Your task to perform on an android device: Open sound settings Image 0: 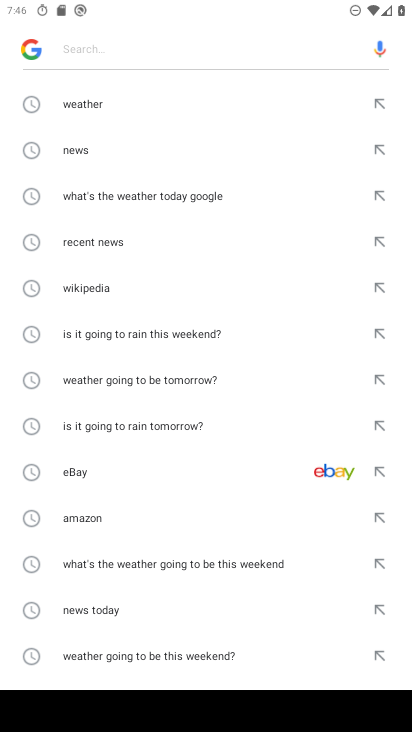
Step 0: press home button
Your task to perform on an android device: Open sound settings Image 1: 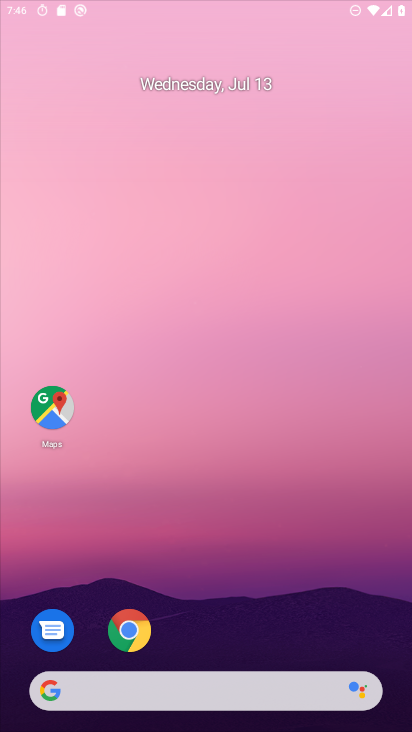
Step 1: drag from (390, 658) to (320, 6)
Your task to perform on an android device: Open sound settings Image 2: 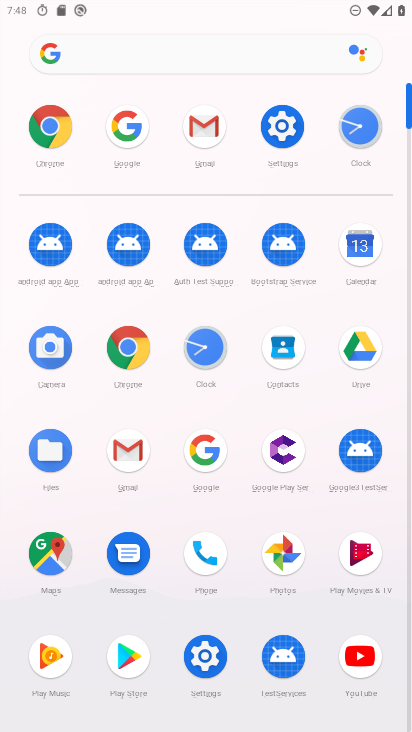
Step 2: click (200, 649)
Your task to perform on an android device: Open sound settings Image 3: 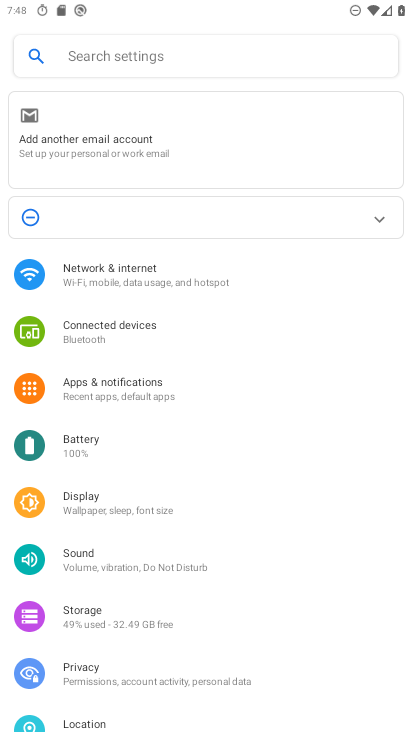
Step 3: click (90, 562)
Your task to perform on an android device: Open sound settings Image 4: 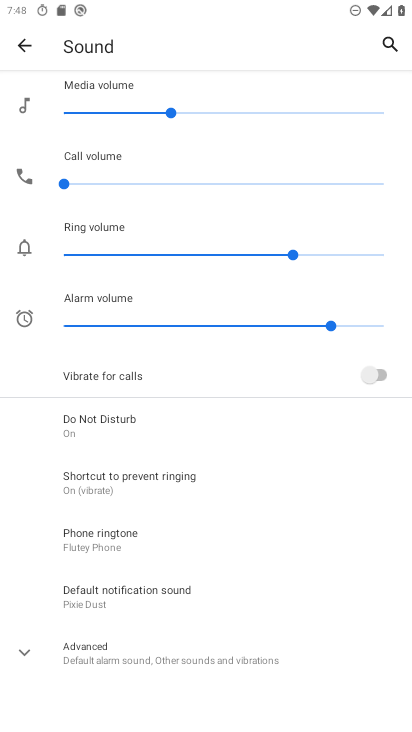
Step 4: task complete